Your task to perform on an android device: add a label to a message in the gmail app Image 0: 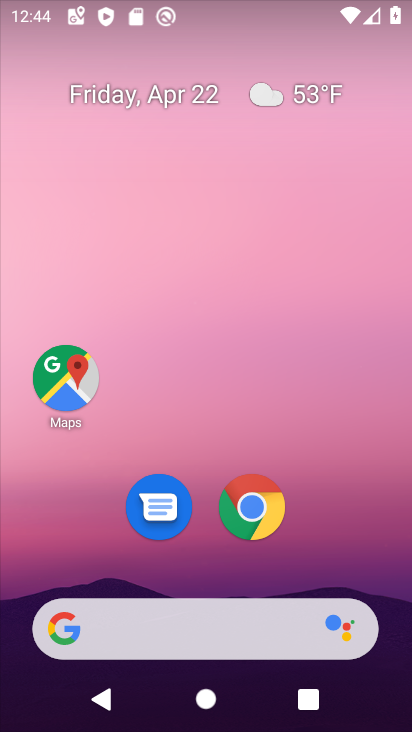
Step 0: drag from (303, 507) to (261, 298)
Your task to perform on an android device: add a label to a message in the gmail app Image 1: 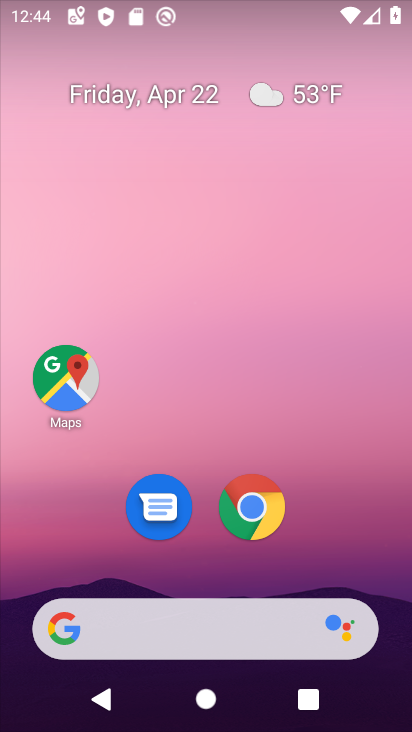
Step 1: drag from (321, 438) to (238, 32)
Your task to perform on an android device: add a label to a message in the gmail app Image 2: 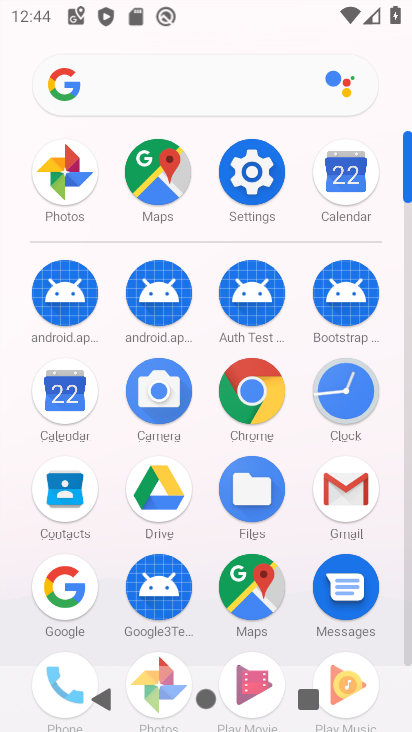
Step 2: click (335, 484)
Your task to perform on an android device: add a label to a message in the gmail app Image 3: 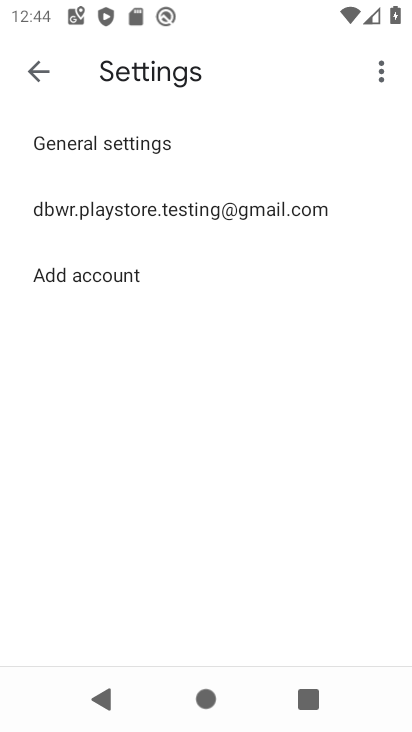
Step 3: click (34, 76)
Your task to perform on an android device: add a label to a message in the gmail app Image 4: 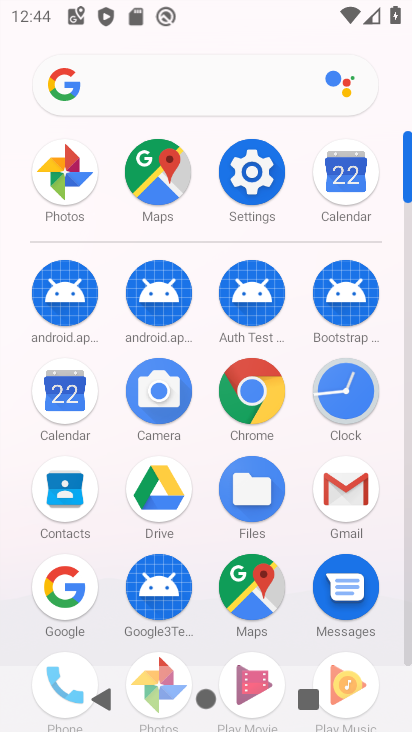
Step 4: click (355, 490)
Your task to perform on an android device: add a label to a message in the gmail app Image 5: 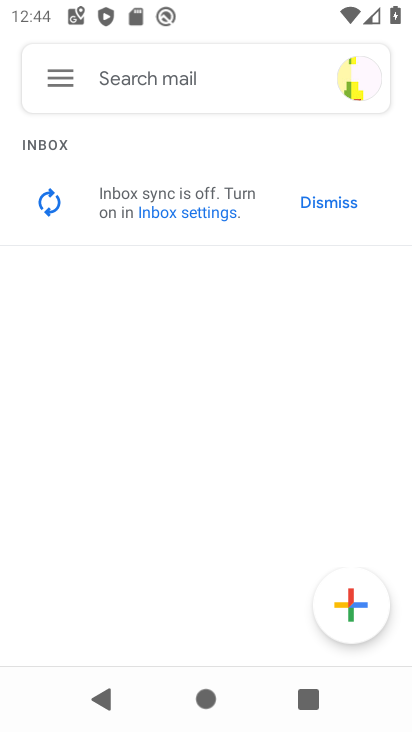
Step 5: click (59, 81)
Your task to perform on an android device: add a label to a message in the gmail app Image 6: 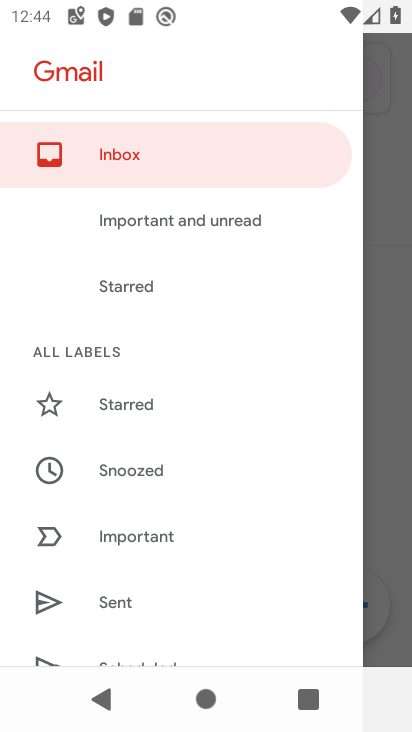
Step 6: drag from (119, 548) to (113, 170)
Your task to perform on an android device: add a label to a message in the gmail app Image 7: 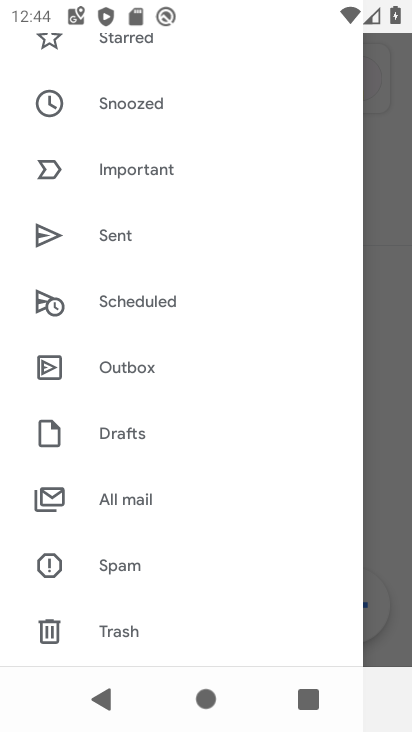
Step 7: drag from (140, 516) to (175, 571)
Your task to perform on an android device: add a label to a message in the gmail app Image 8: 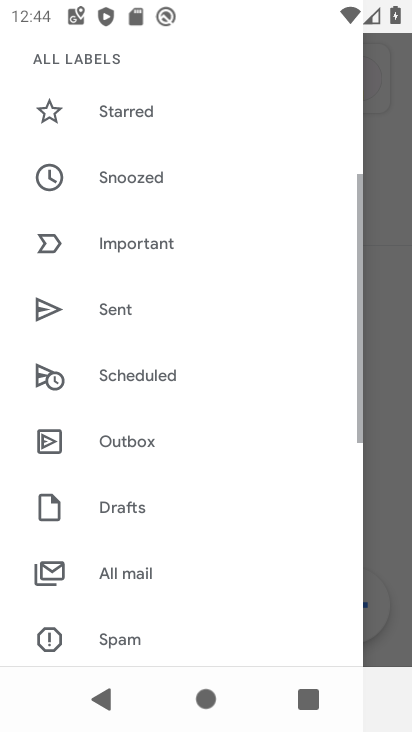
Step 8: drag from (235, 195) to (193, 566)
Your task to perform on an android device: add a label to a message in the gmail app Image 9: 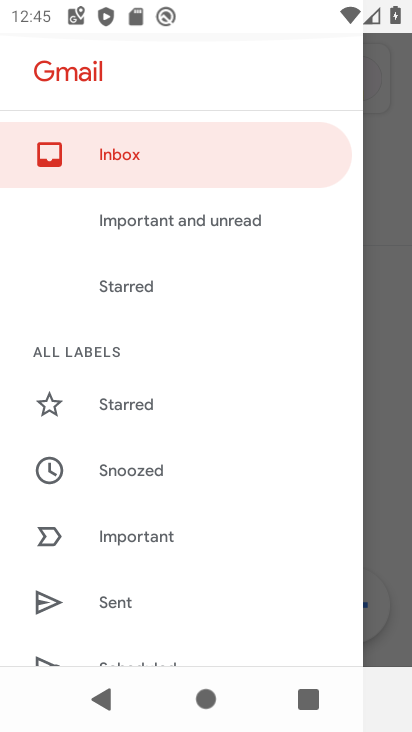
Step 9: click (392, 363)
Your task to perform on an android device: add a label to a message in the gmail app Image 10: 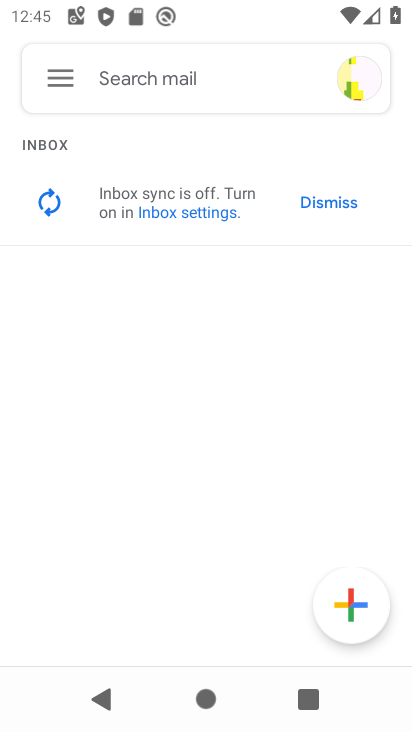
Step 10: task complete